Your task to perform on an android device: Check the news Image 0: 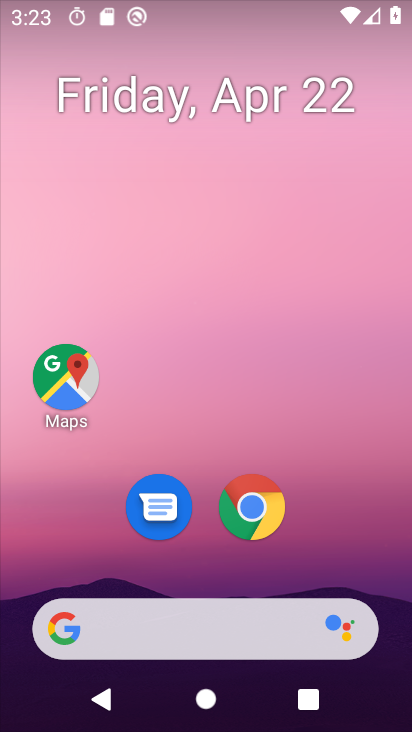
Step 0: click (262, 501)
Your task to perform on an android device: Check the news Image 1: 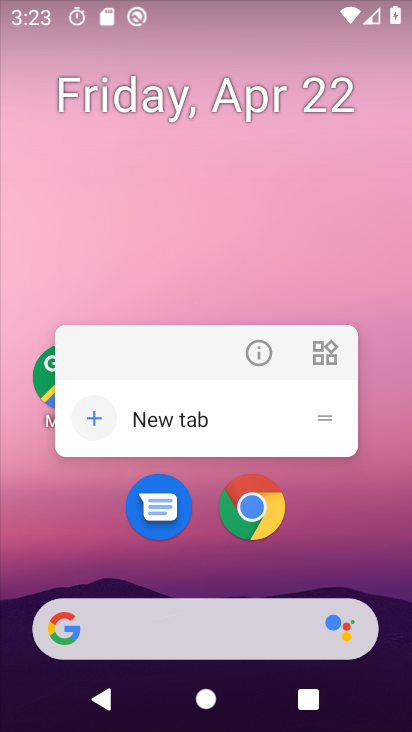
Step 1: click (262, 502)
Your task to perform on an android device: Check the news Image 2: 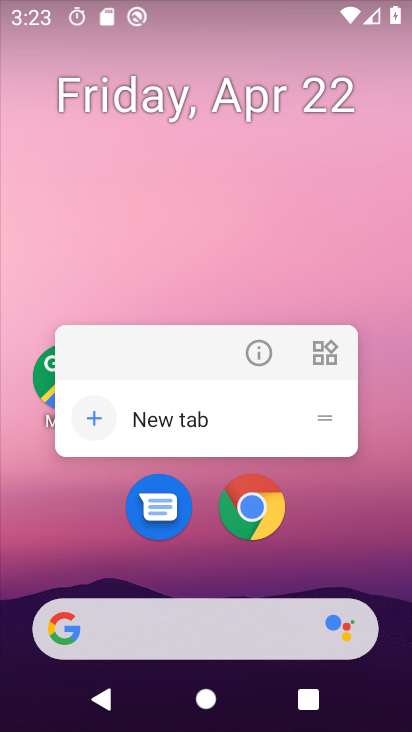
Step 2: click (262, 502)
Your task to perform on an android device: Check the news Image 3: 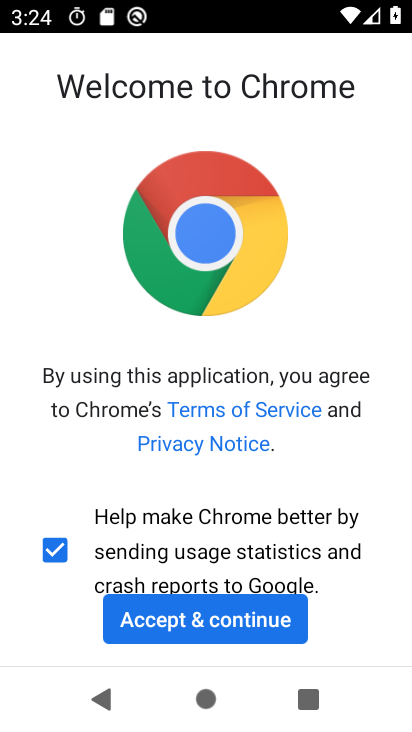
Step 3: click (233, 618)
Your task to perform on an android device: Check the news Image 4: 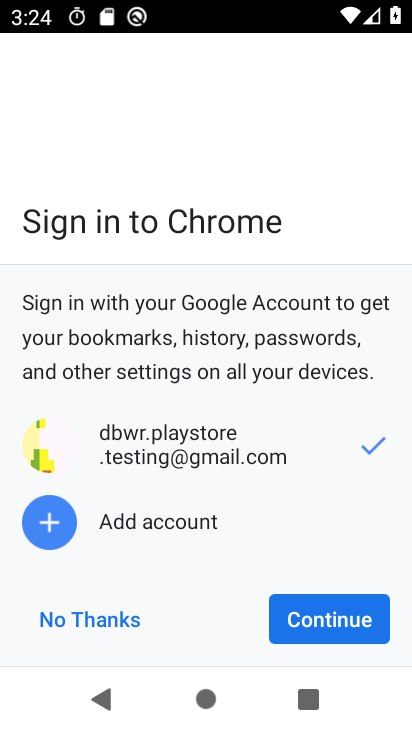
Step 4: click (105, 617)
Your task to perform on an android device: Check the news Image 5: 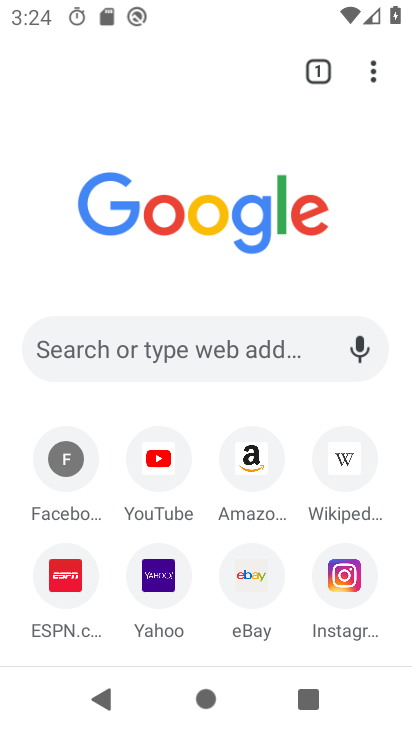
Step 5: task complete